Your task to perform on an android device: turn off javascript in the chrome app Image 0: 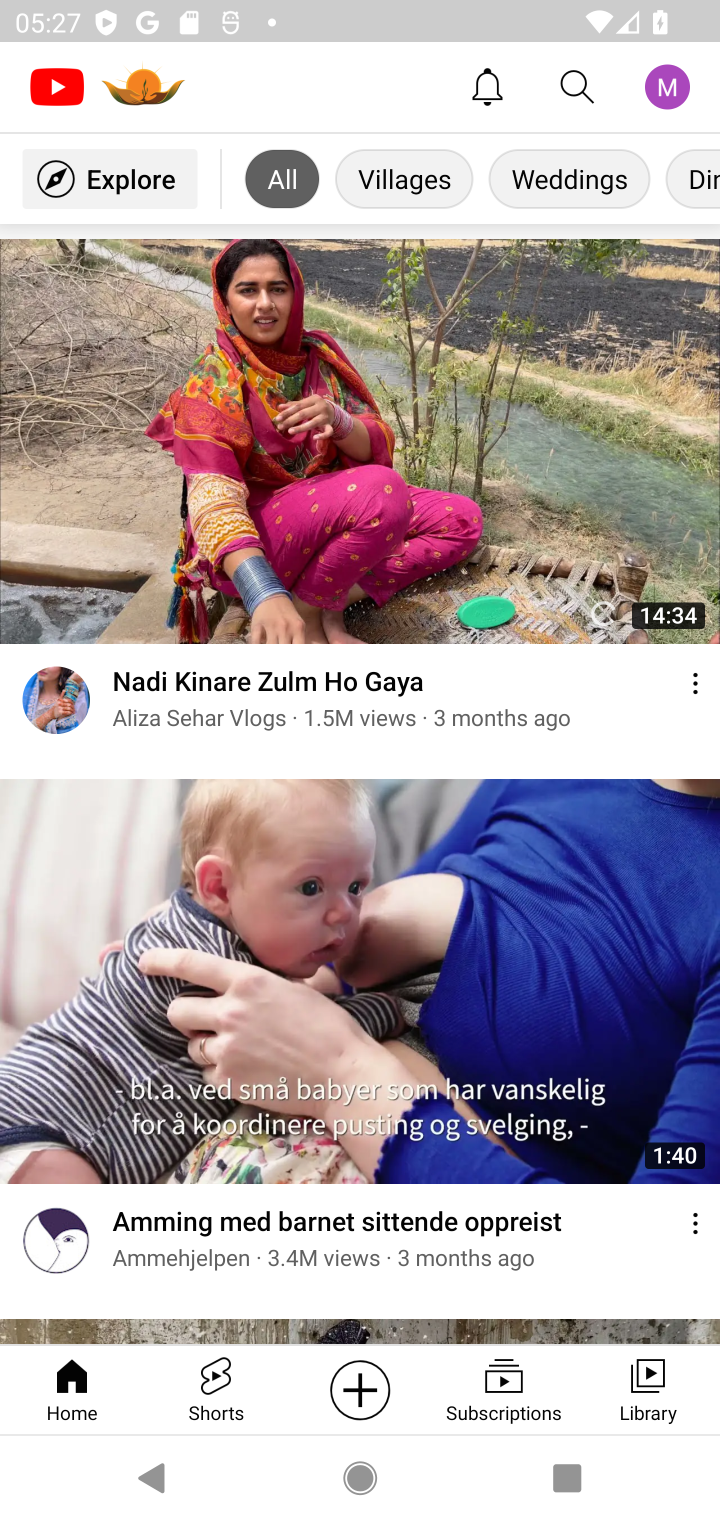
Step 0: press home button
Your task to perform on an android device: turn off javascript in the chrome app Image 1: 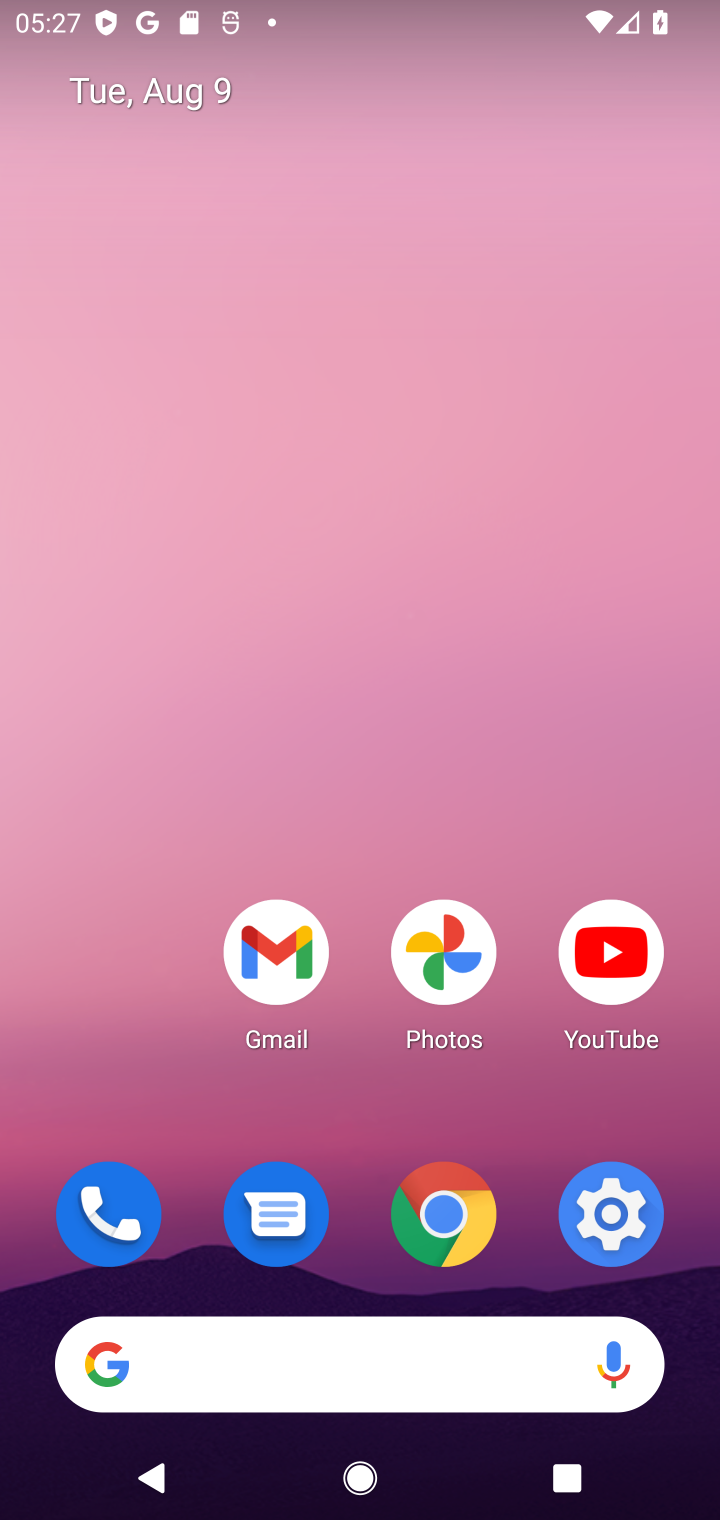
Step 1: drag from (480, 1117) to (505, 180)
Your task to perform on an android device: turn off javascript in the chrome app Image 2: 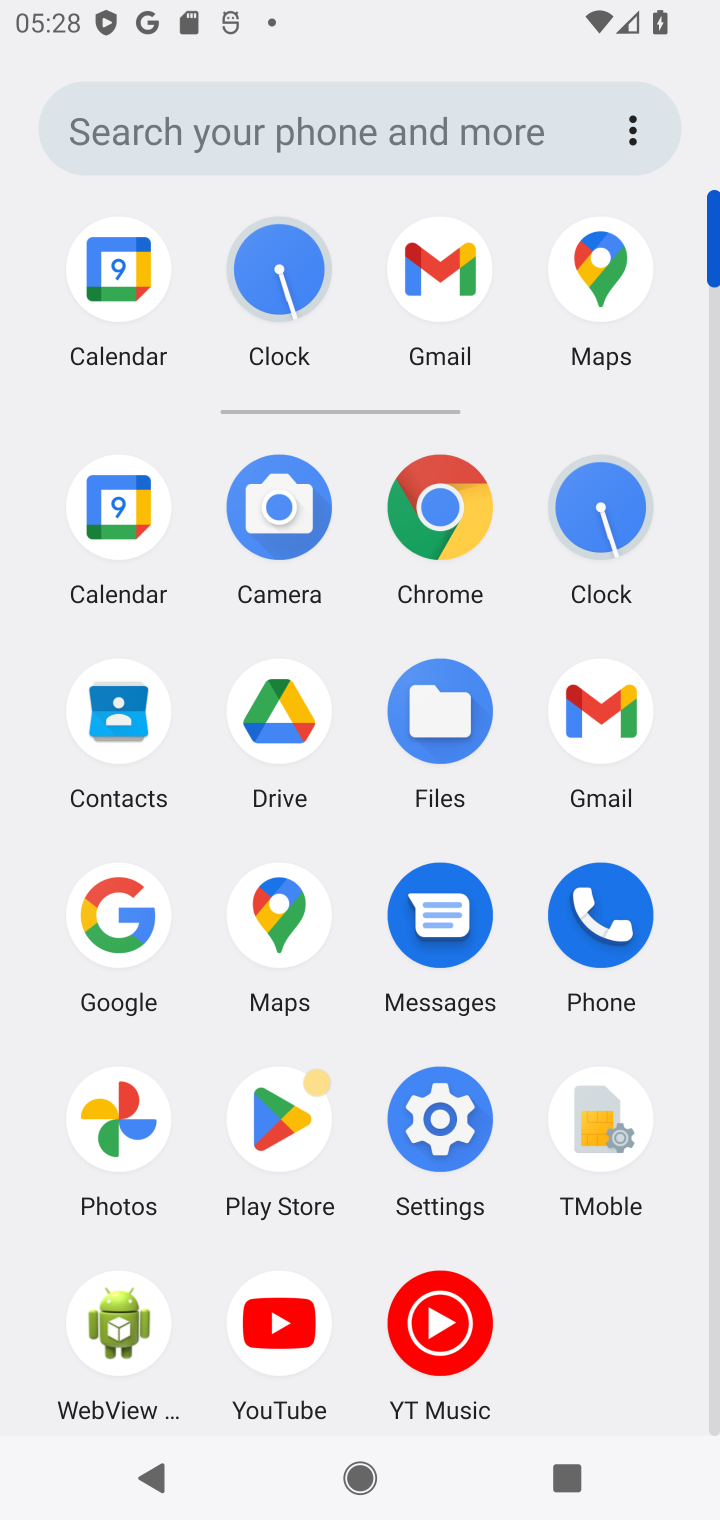
Step 2: click (430, 489)
Your task to perform on an android device: turn off javascript in the chrome app Image 3: 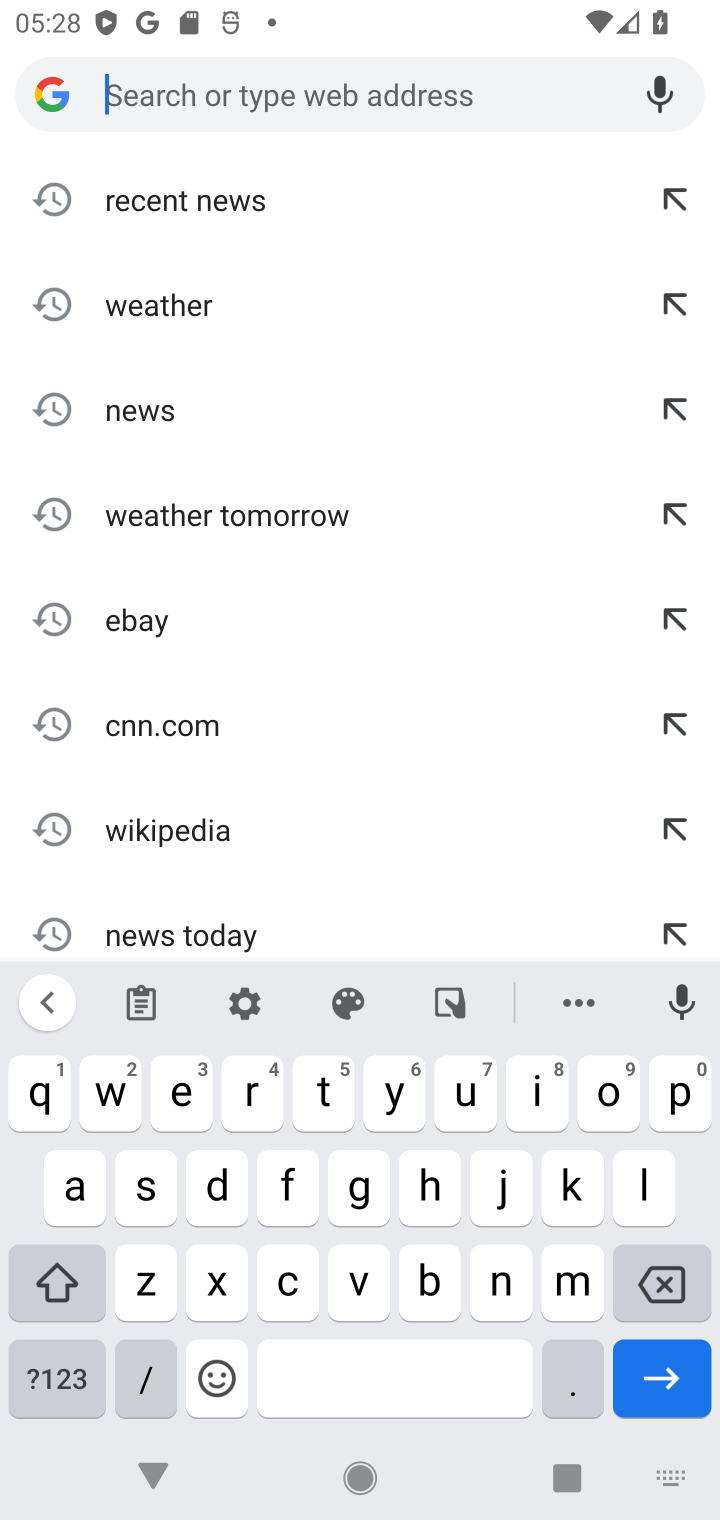
Step 3: press back button
Your task to perform on an android device: turn off javascript in the chrome app Image 4: 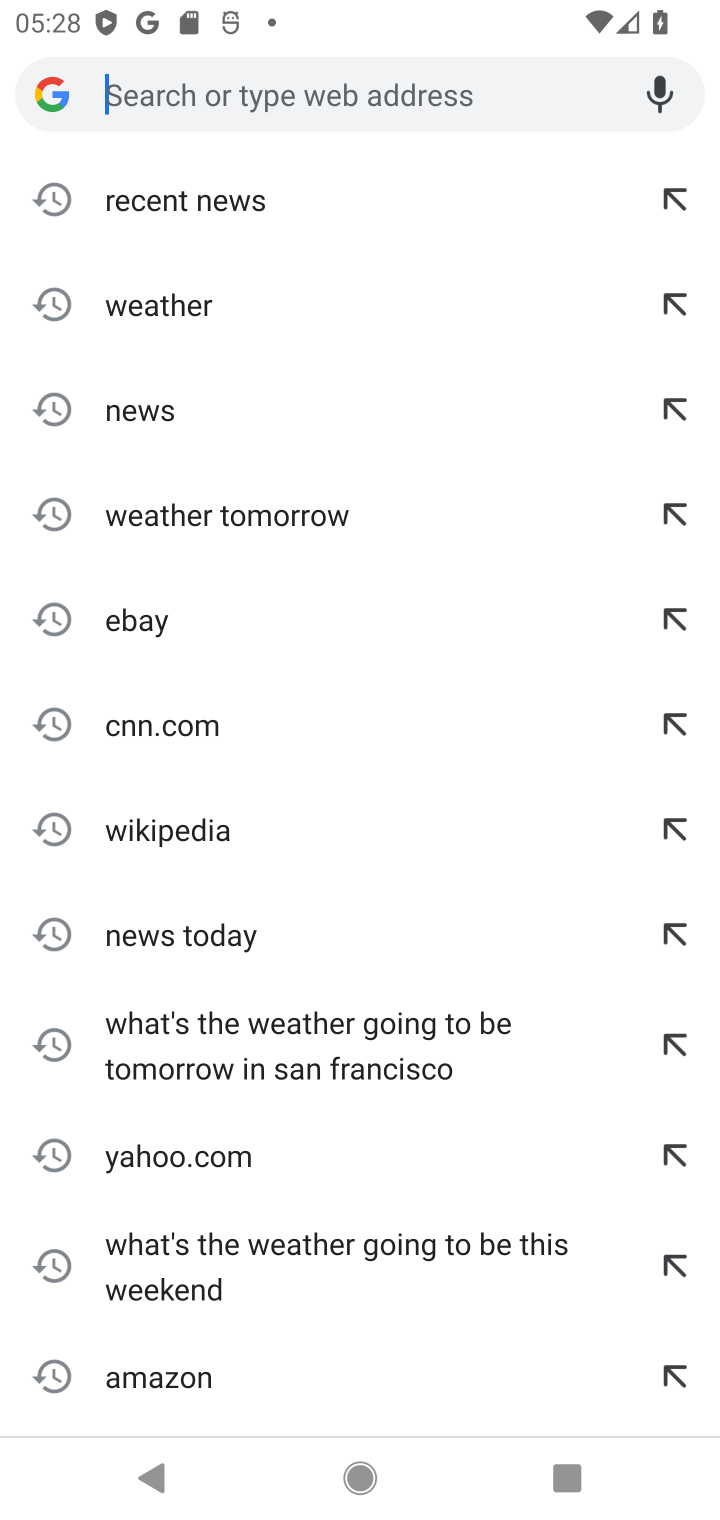
Step 4: press back button
Your task to perform on an android device: turn off javascript in the chrome app Image 5: 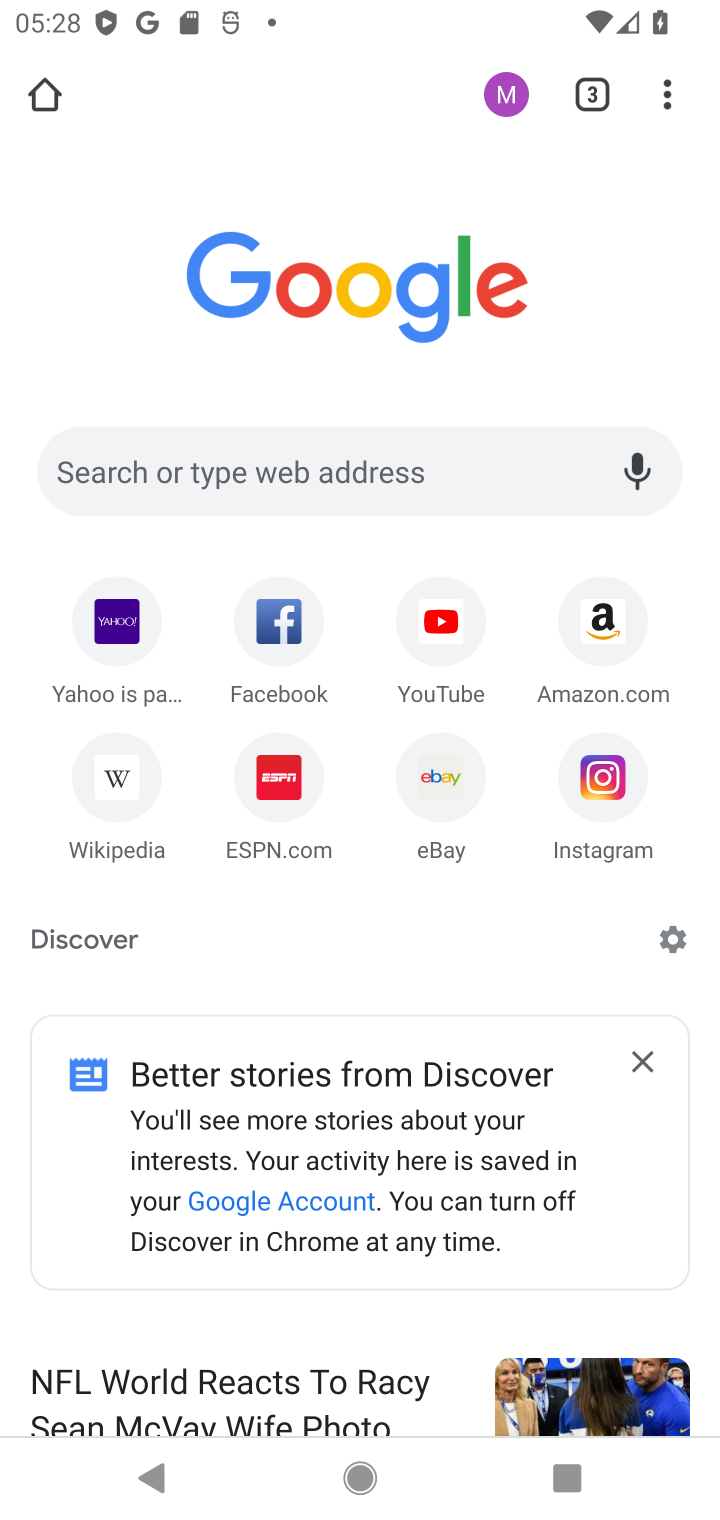
Step 5: click (666, 114)
Your task to perform on an android device: turn off javascript in the chrome app Image 6: 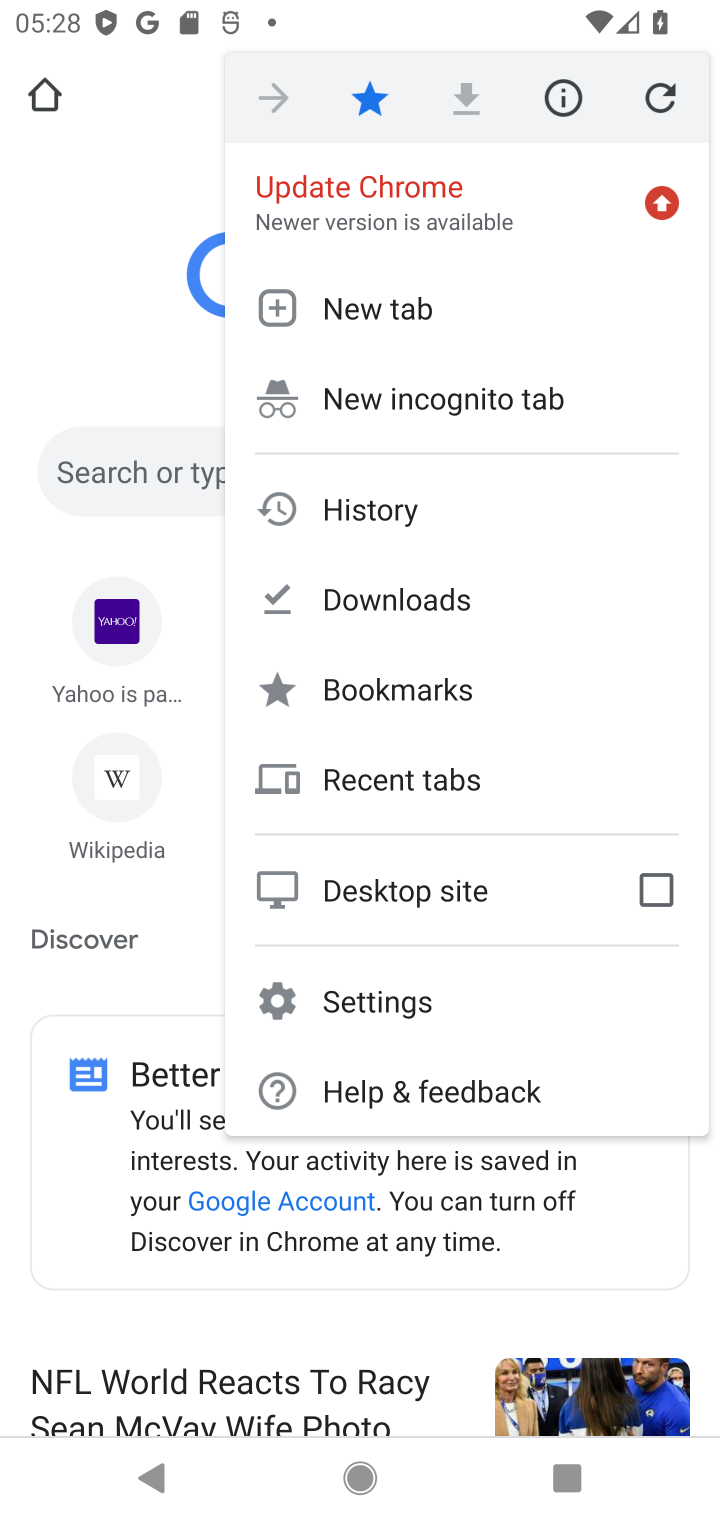
Step 6: click (388, 1010)
Your task to perform on an android device: turn off javascript in the chrome app Image 7: 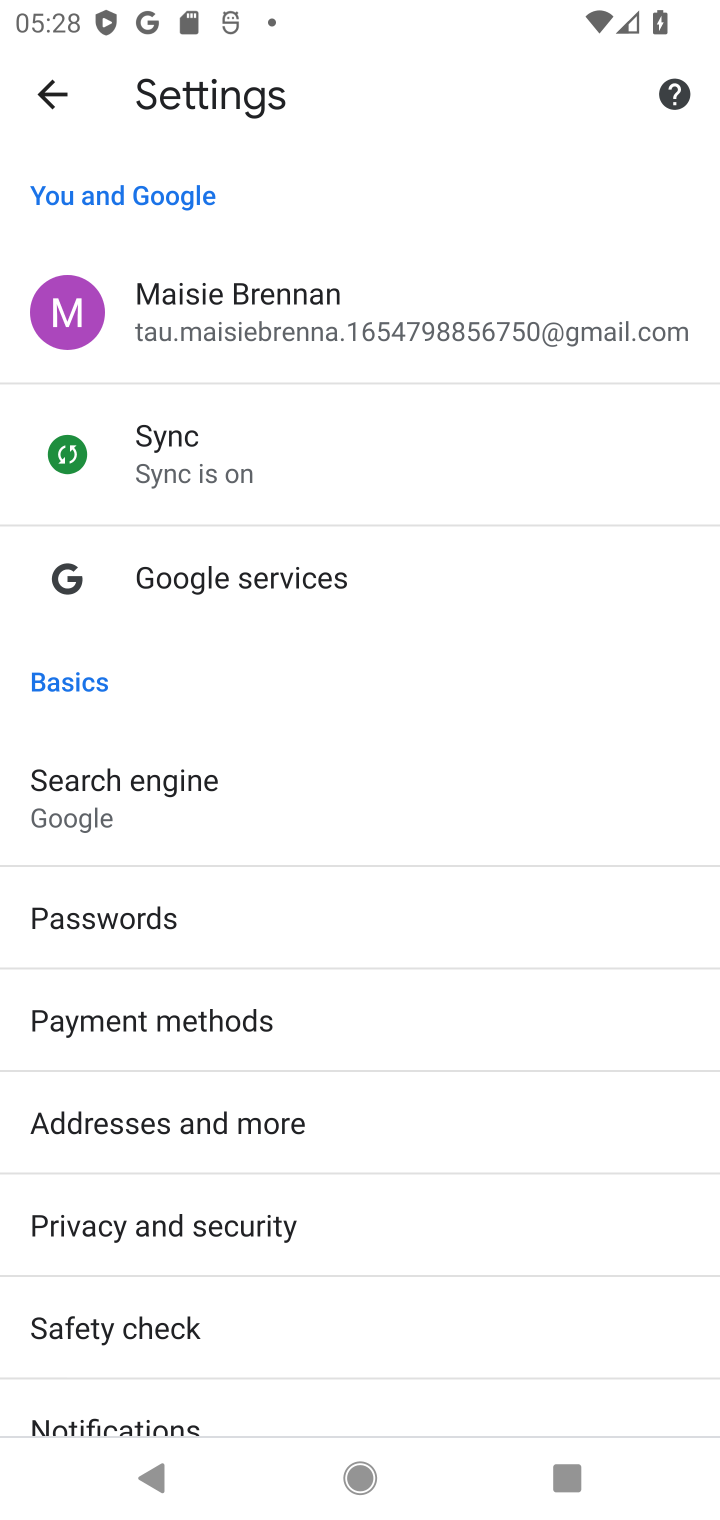
Step 7: drag from (202, 1282) to (225, 862)
Your task to perform on an android device: turn off javascript in the chrome app Image 8: 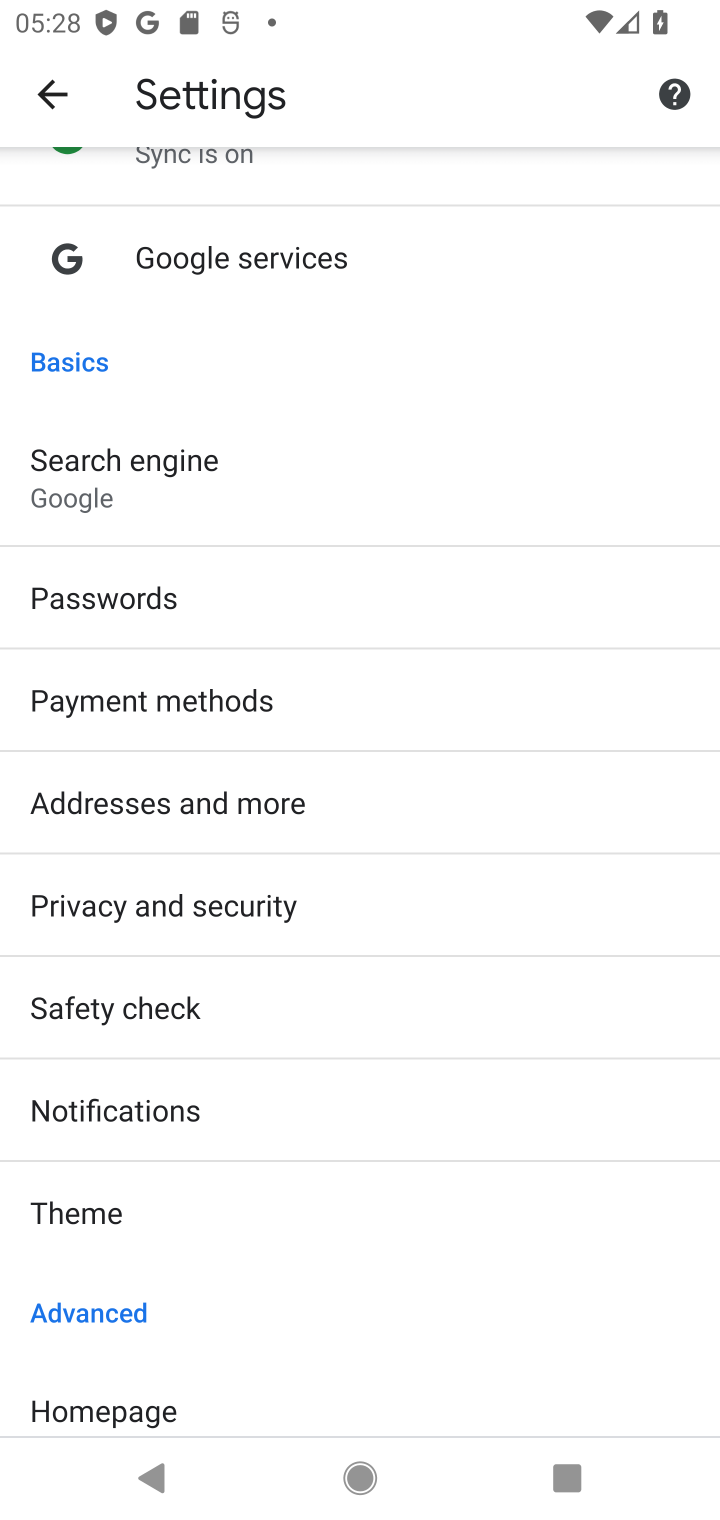
Step 8: drag from (164, 1329) to (235, 861)
Your task to perform on an android device: turn off javascript in the chrome app Image 9: 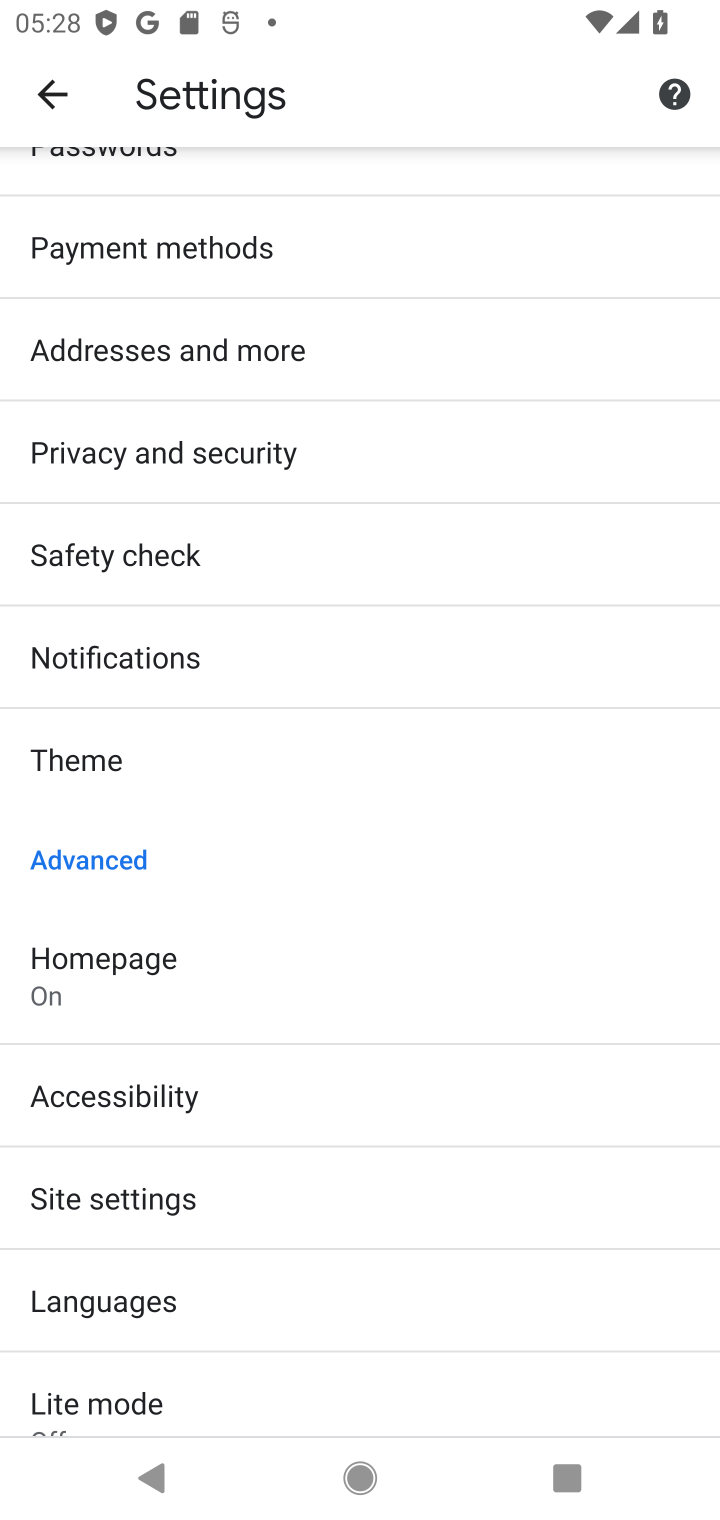
Step 9: click (217, 1225)
Your task to perform on an android device: turn off javascript in the chrome app Image 10: 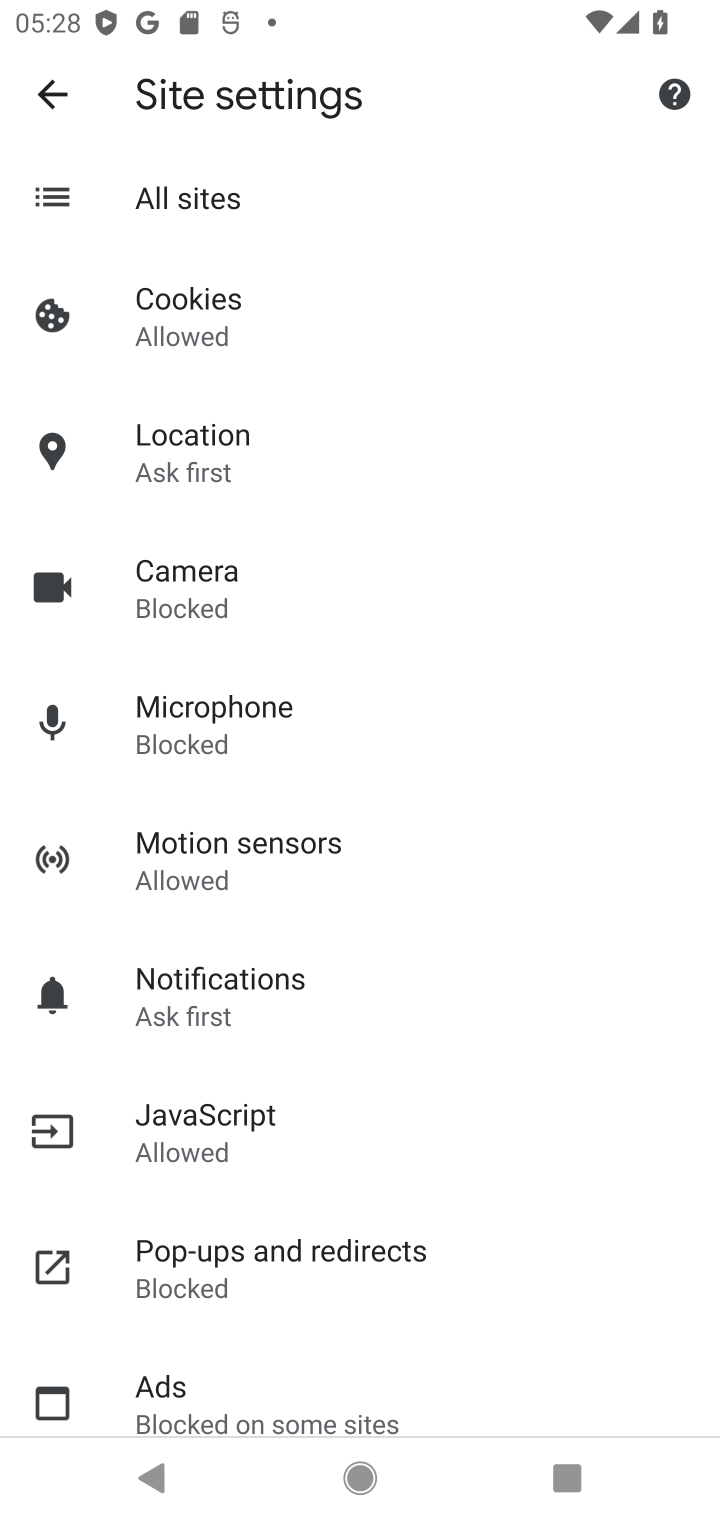
Step 10: click (221, 1121)
Your task to perform on an android device: turn off javascript in the chrome app Image 11: 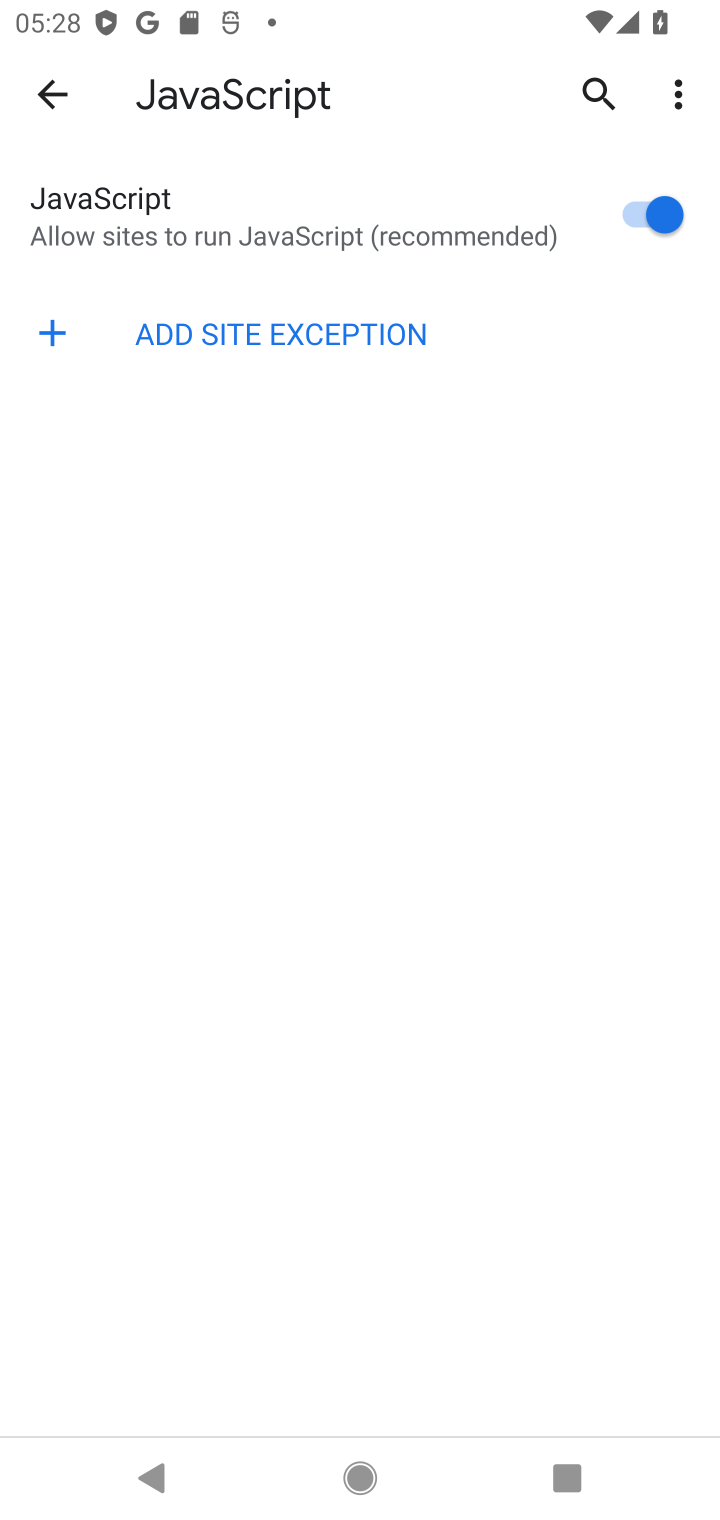
Step 11: click (578, 213)
Your task to perform on an android device: turn off javascript in the chrome app Image 12: 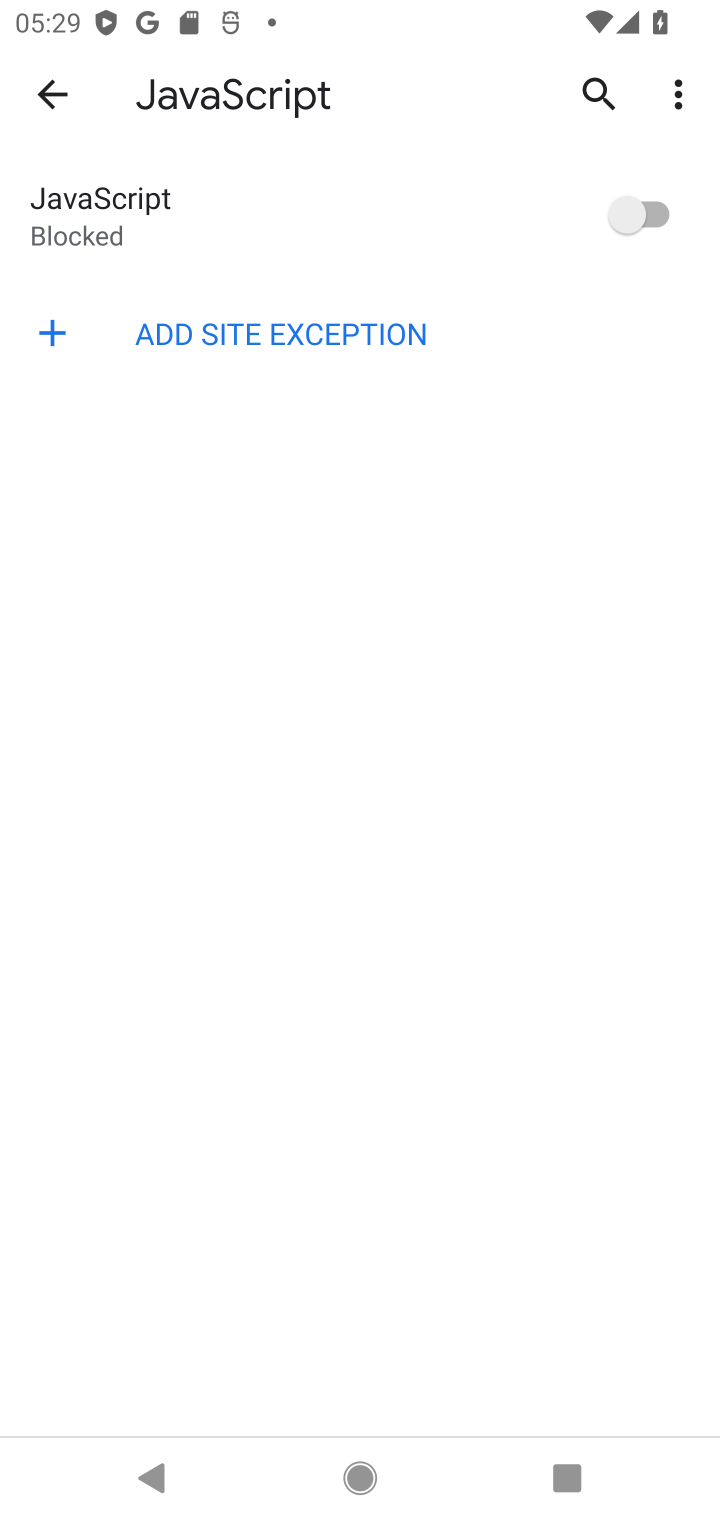
Step 12: task complete